Your task to perform on an android device: Open privacy settings Image 0: 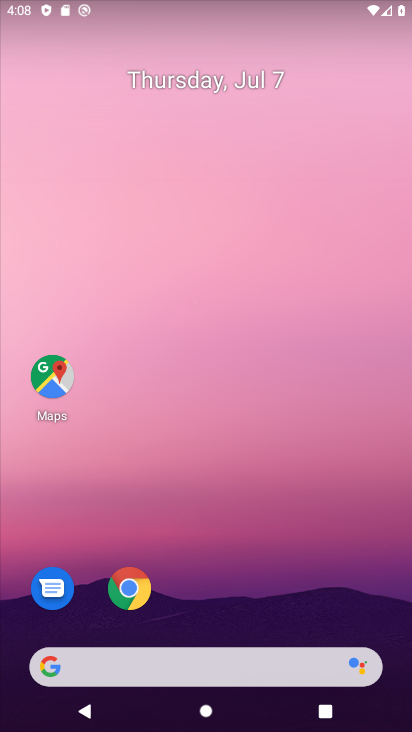
Step 0: drag from (312, 645) to (351, 65)
Your task to perform on an android device: Open privacy settings Image 1: 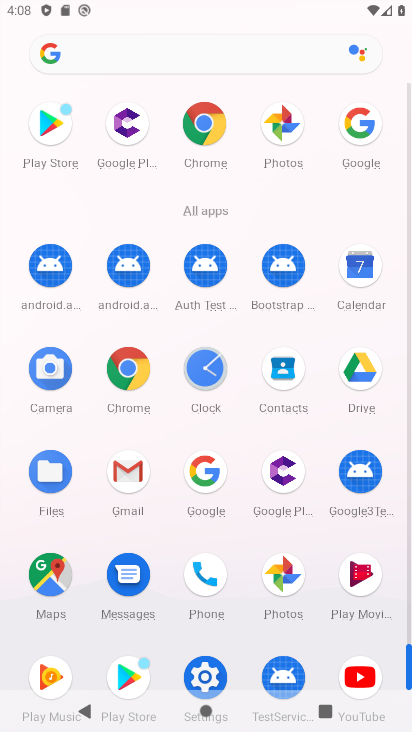
Step 1: click (212, 659)
Your task to perform on an android device: Open privacy settings Image 2: 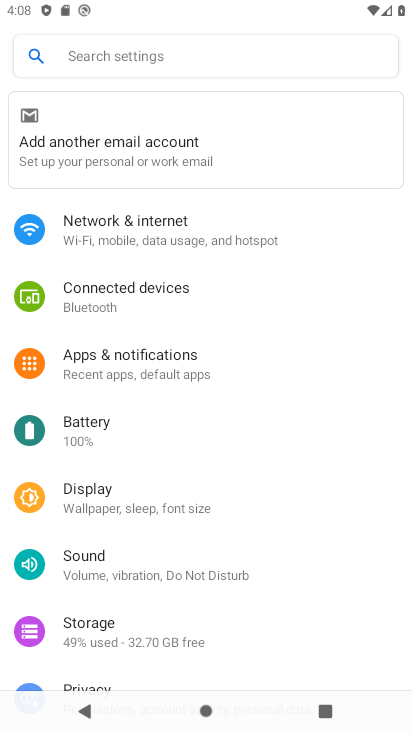
Step 2: drag from (111, 616) to (150, 332)
Your task to perform on an android device: Open privacy settings Image 3: 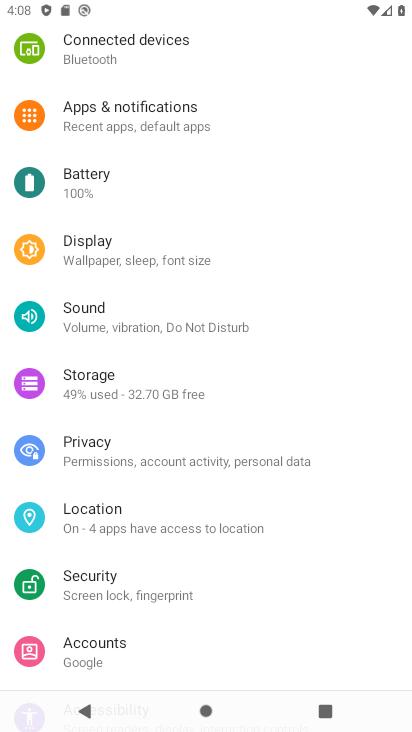
Step 3: click (134, 447)
Your task to perform on an android device: Open privacy settings Image 4: 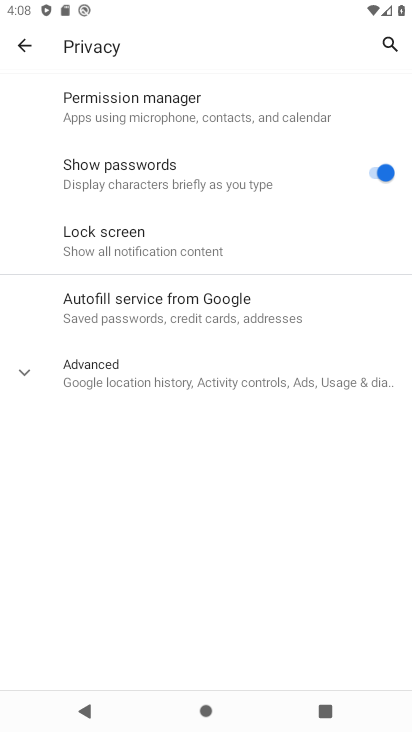
Step 4: task complete